Your task to perform on an android device: What's the weather today? Image 0: 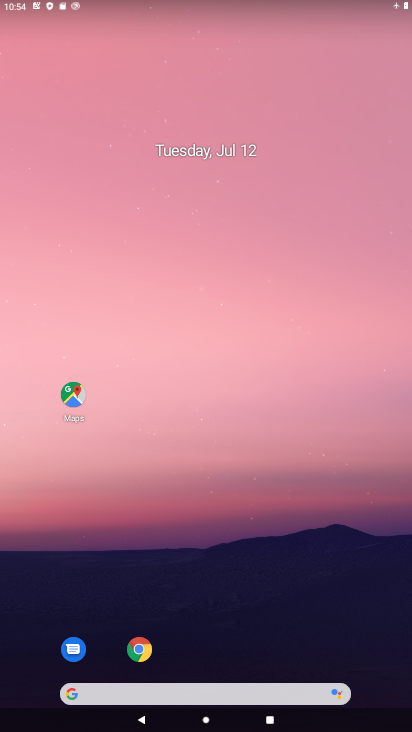
Step 0: drag from (2, 273) to (397, 296)
Your task to perform on an android device: What's the weather today? Image 1: 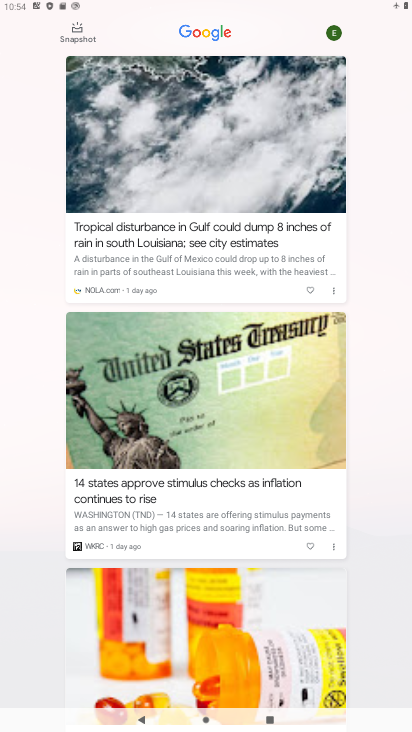
Step 1: drag from (251, 210) to (198, 537)
Your task to perform on an android device: What's the weather today? Image 2: 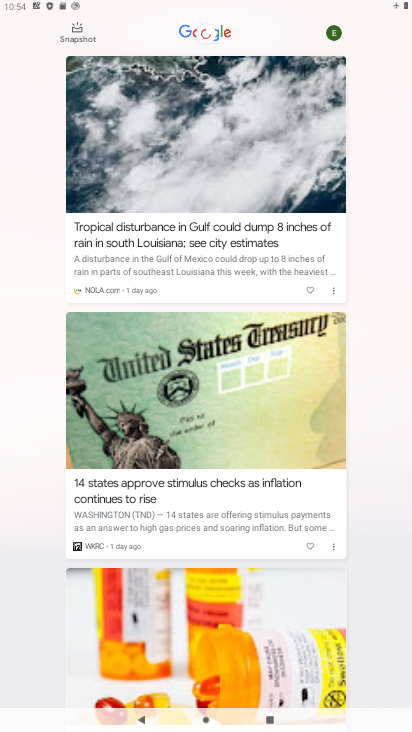
Step 2: drag from (351, 506) to (2, 499)
Your task to perform on an android device: What's the weather today? Image 3: 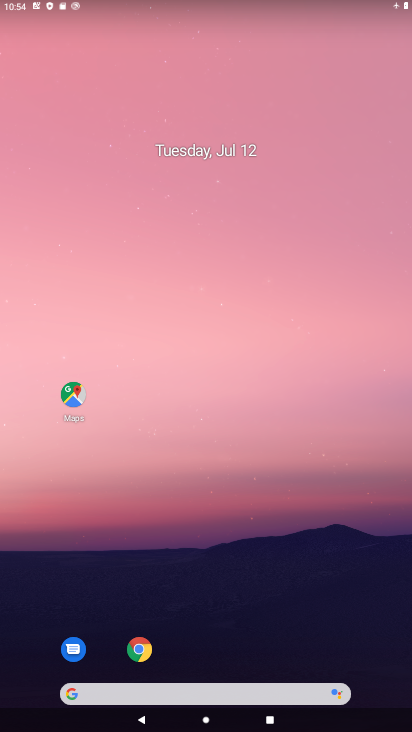
Step 3: click (158, 698)
Your task to perform on an android device: What's the weather today? Image 4: 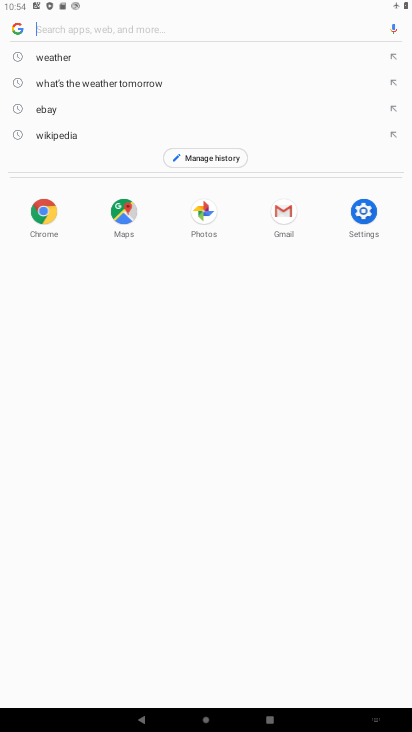
Step 4: click (45, 55)
Your task to perform on an android device: What's the weather today? Image 5: 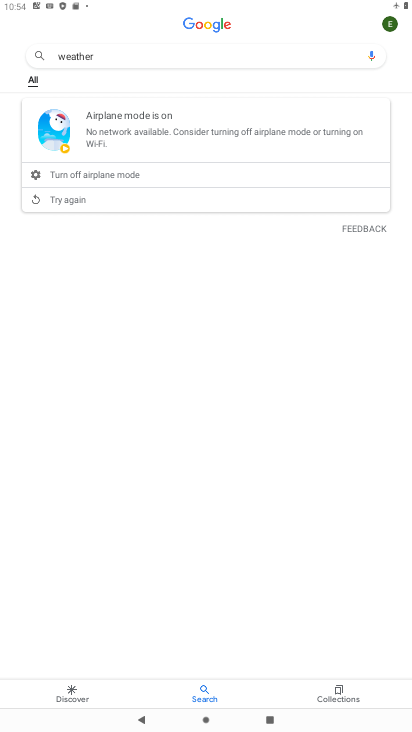
Step 5: click (52, 195)
Your task to perform on an android device: What's the weather today? Image 6: 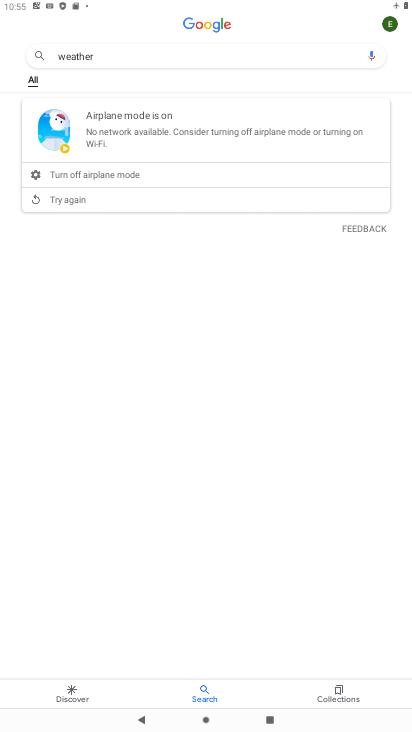
Step 6: task complete